Your task to perform on an android device: toggle priority inbox in the gmail app Image 0: 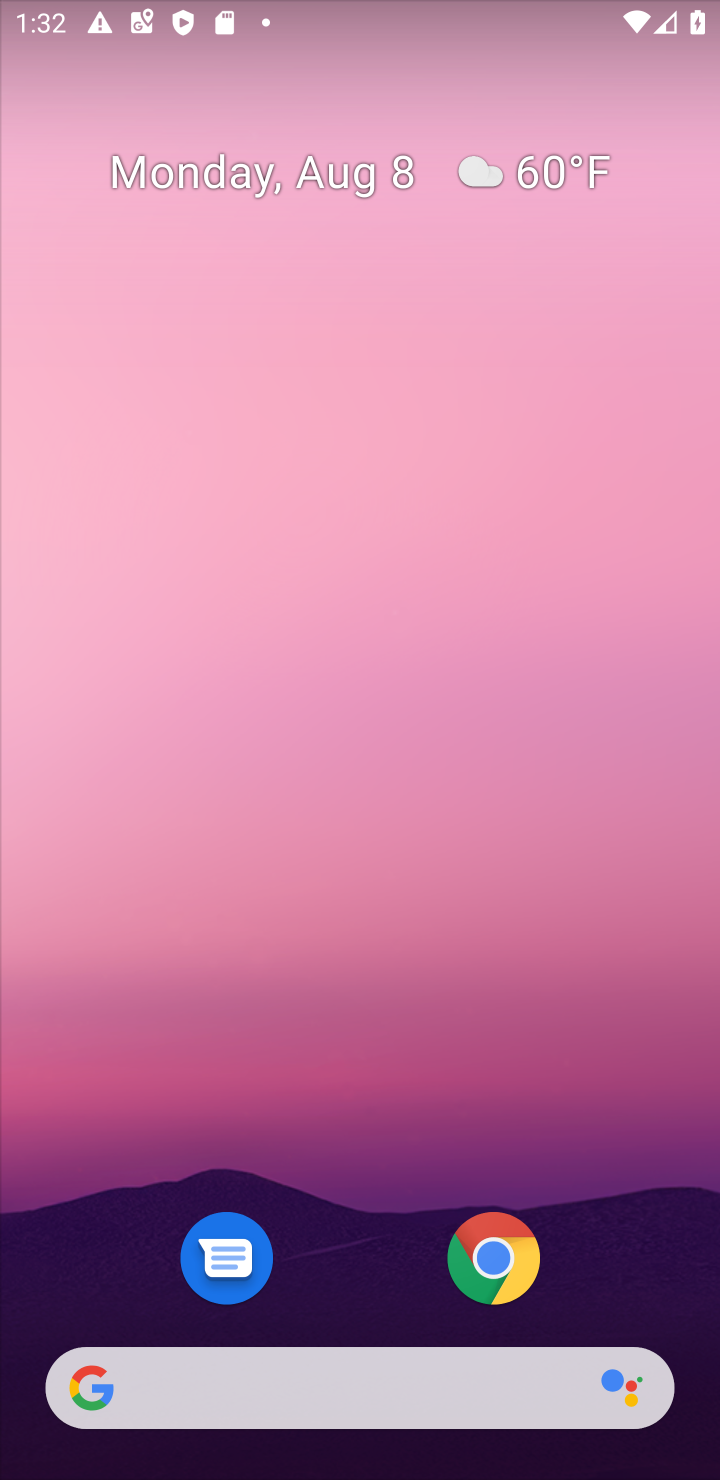
Step 0: drag from (443, 1074) to (602, 169)
Your task to perform on an android device: toggle priority inbox in the gmail app Image 1: 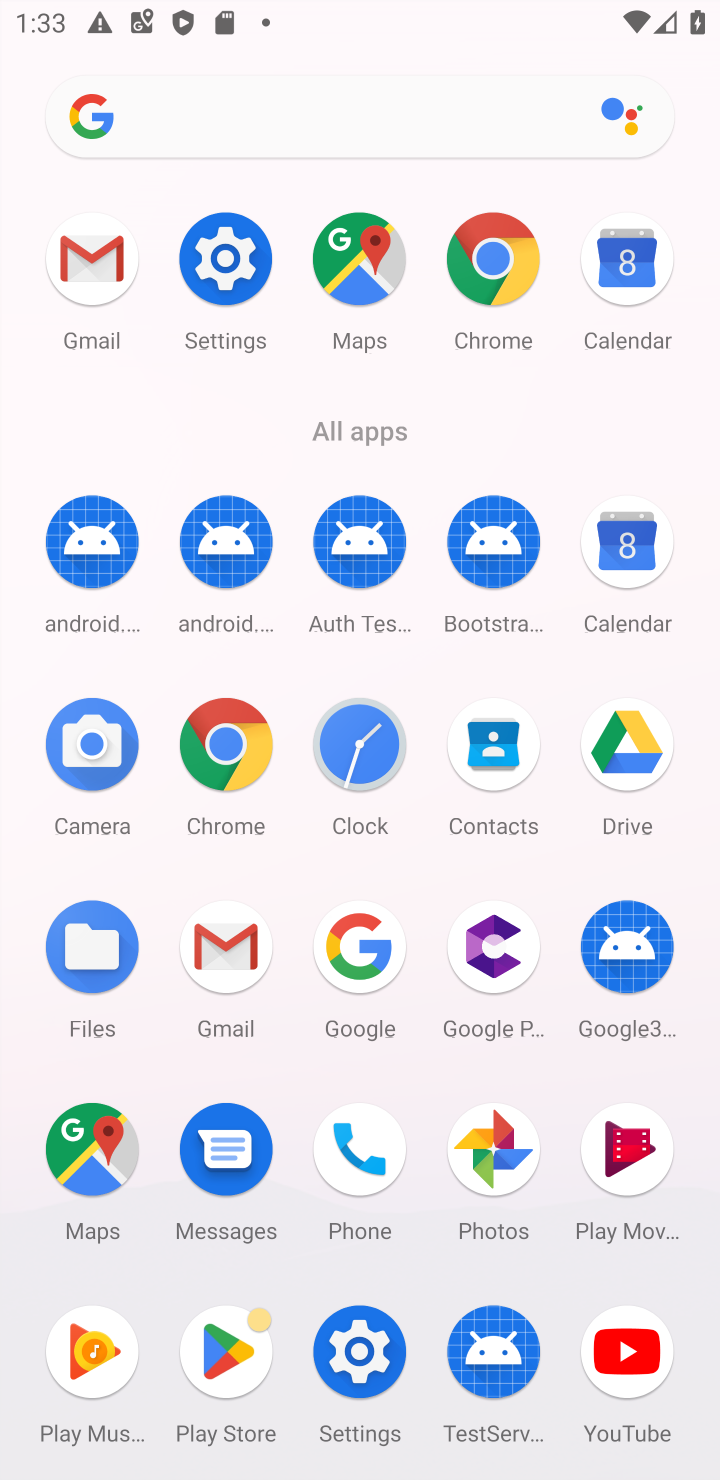
Step 1: click (248, 964)
Your task to perform on an android device: toggle priority inbox in the gmail app Image 2: 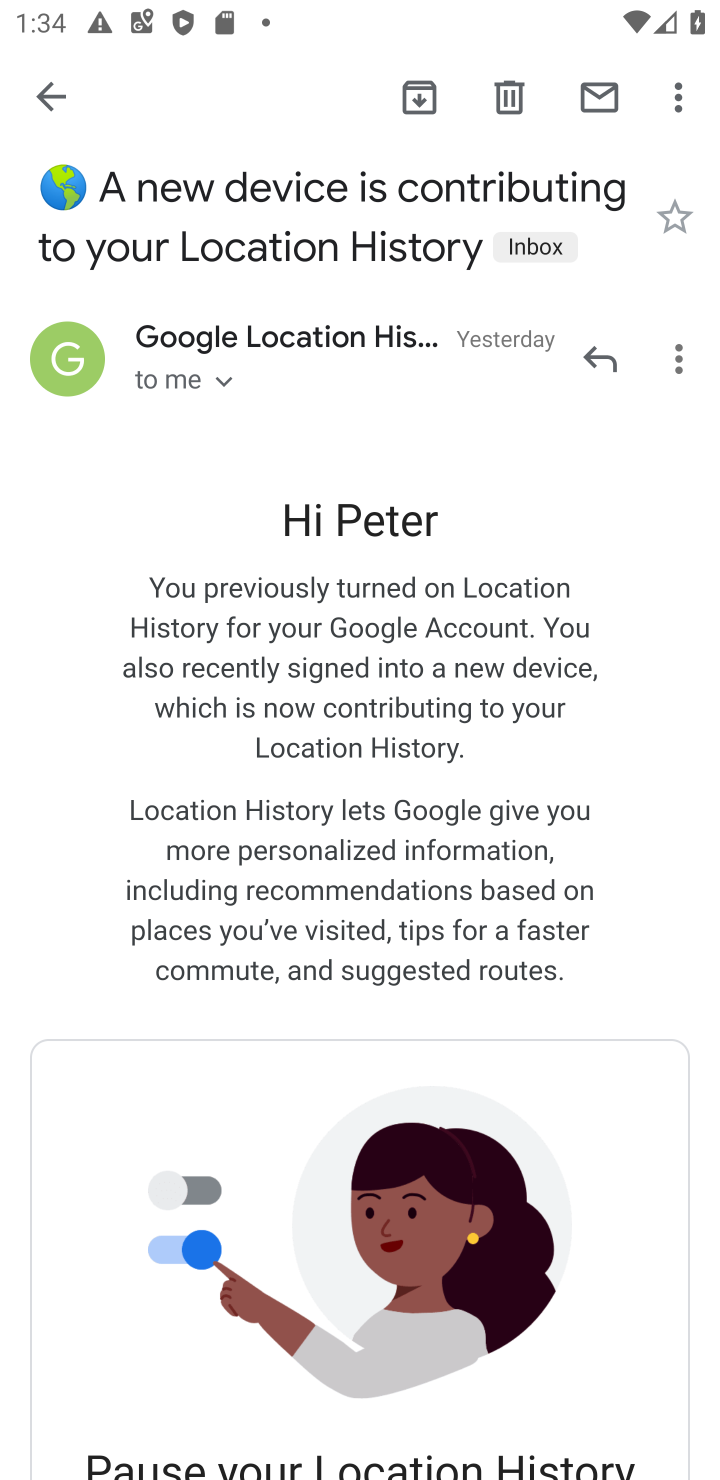
Step 2: click (40, 90)
Your task to perform on an android device: toggle priority inbox in the gmail app Image 3: 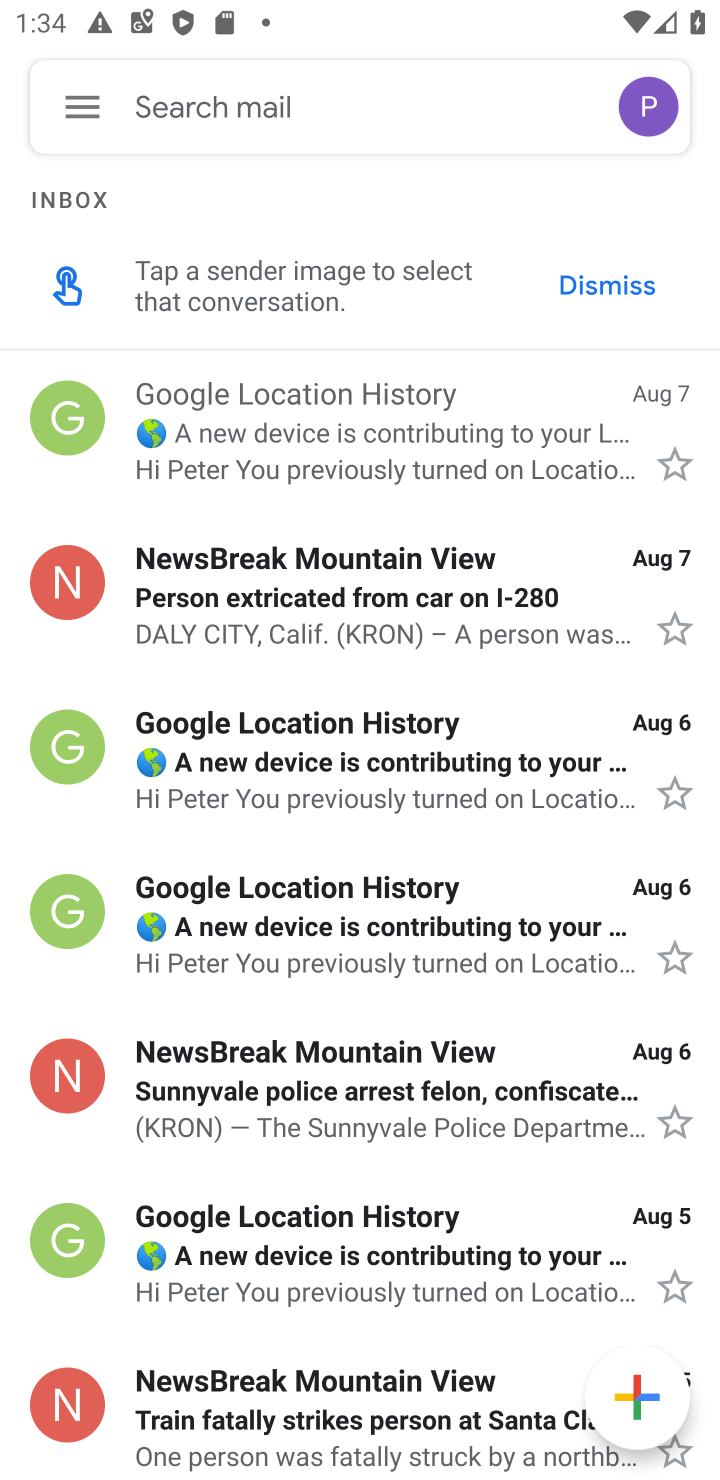
Step 3: click (80, 117)
Your task to perform on an android device: toggle priority inbox in the gmail app Image 4: 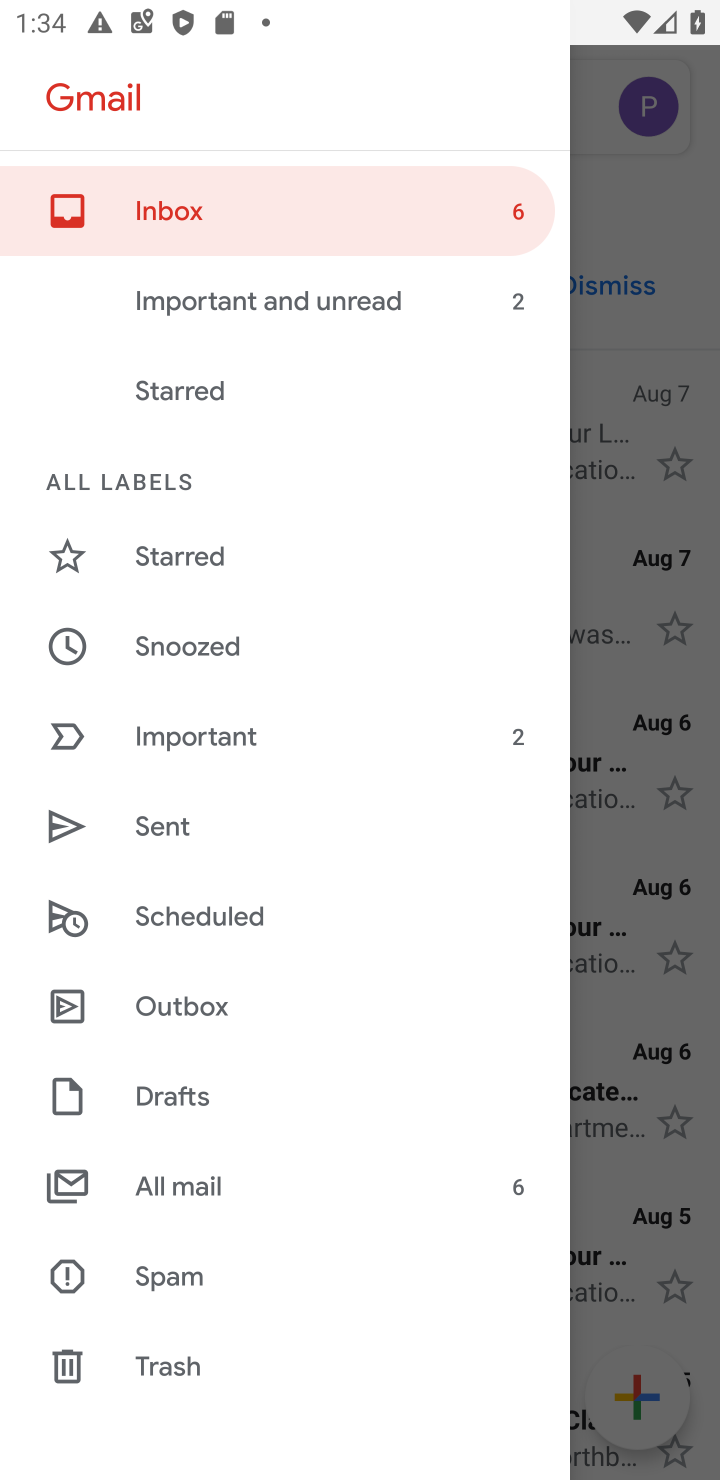
Step 4: drag from (196, 1206) to (389, 129)
Your task to perform on an android device: toggle priority inbox in the gmail app Image 5: 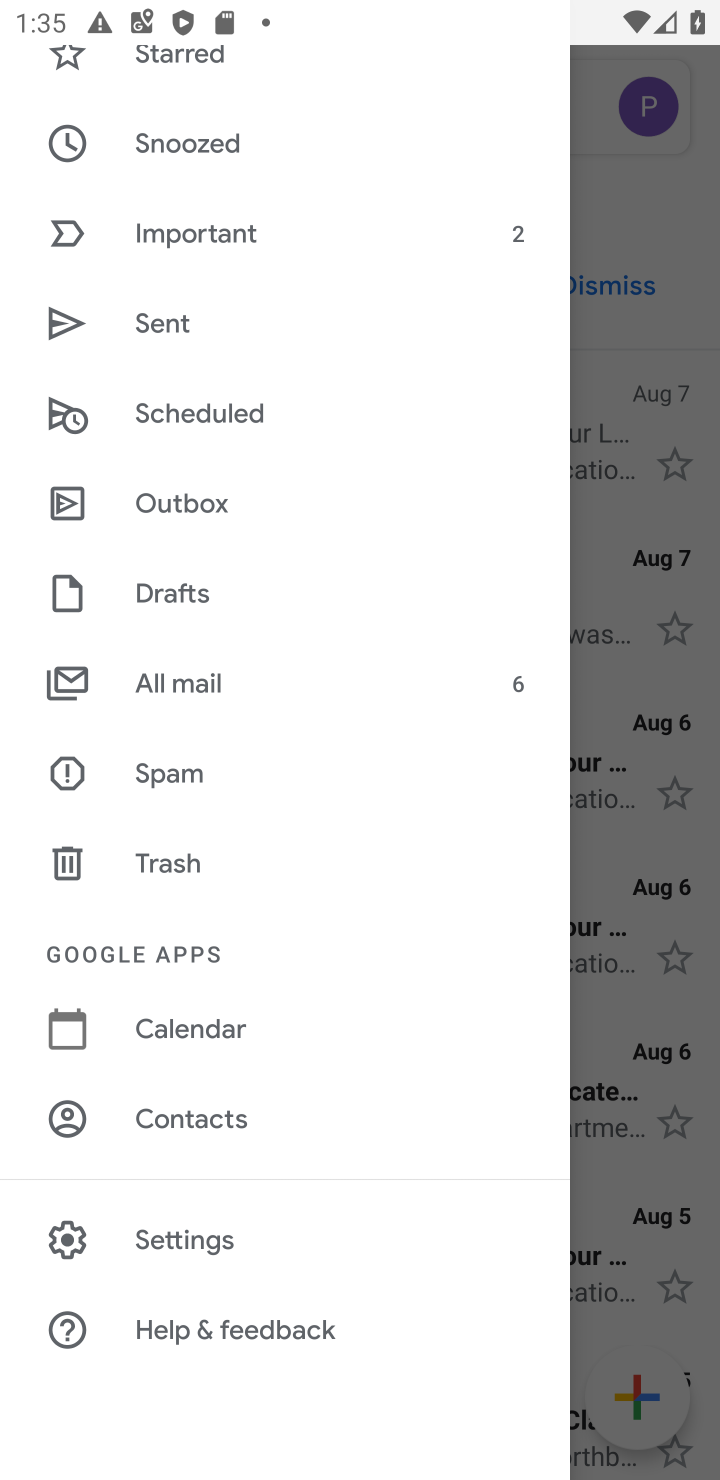
Step 5: click (196, 1243)
Your task to perform on an android device: toggle priority inbox in the gmail app Image 6: 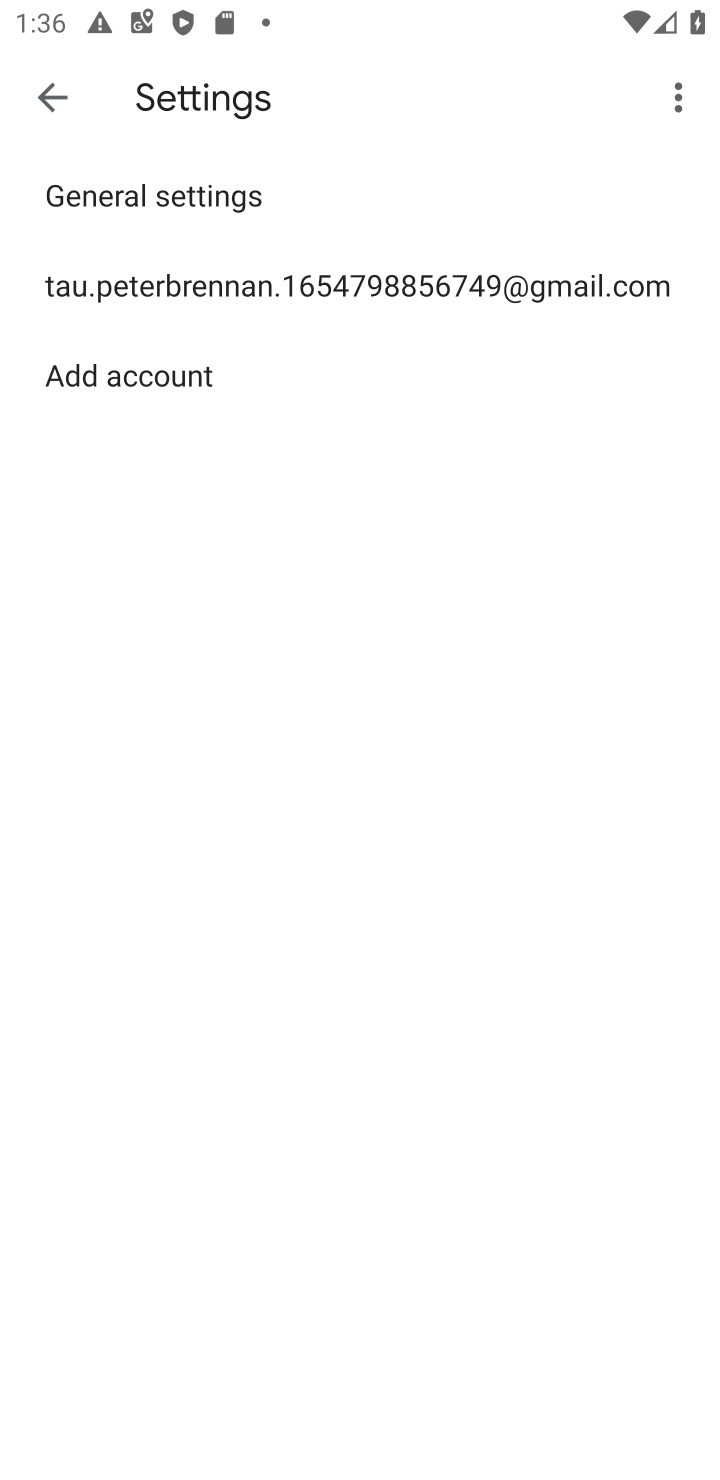
Step 6: click (249, 302)
Your task to perform on an android device: toggle priority inbox in the gmail app Image 7: 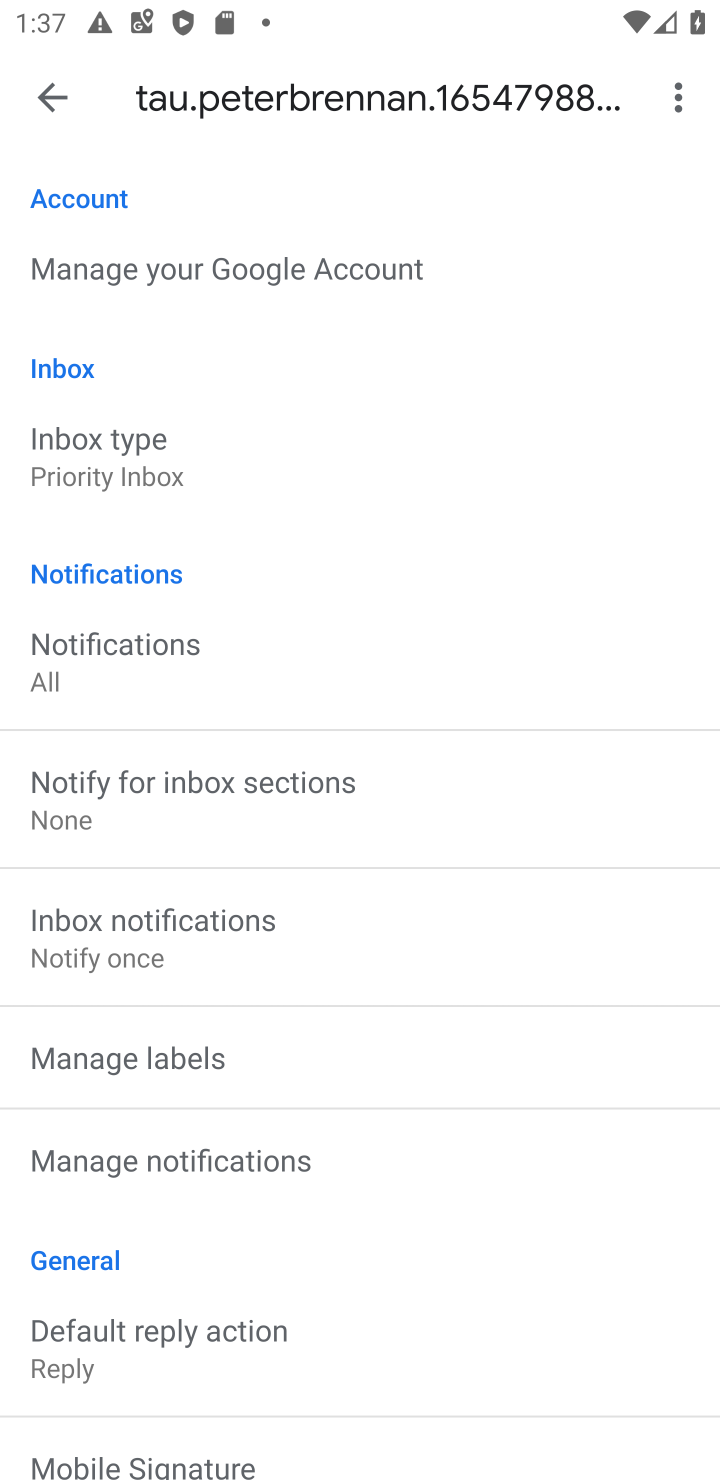
Step 7: click (101, 479)
Your task to perform on an android device: toggle priority inbox in the gmail app Image 8: 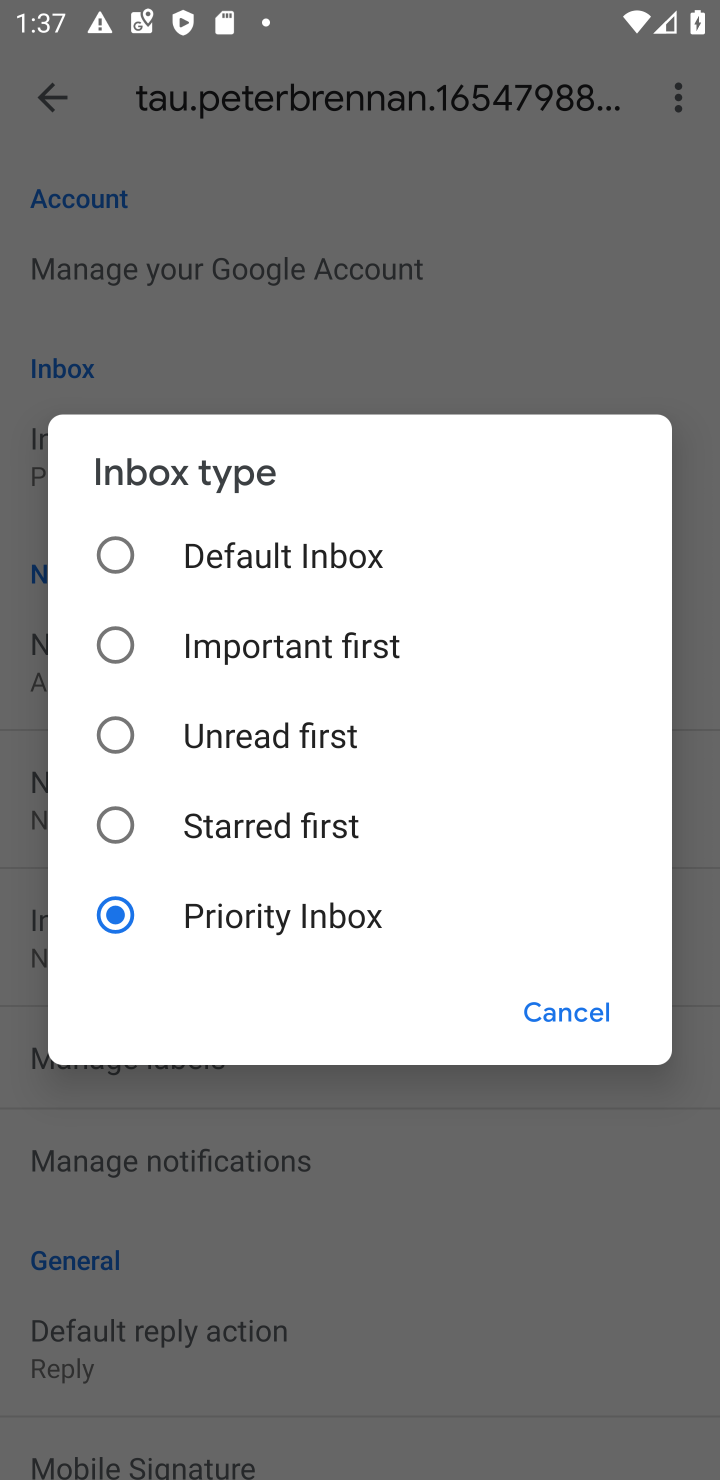
Step 8: click (172, 536)
Your task to perform on an android device: toggle priority inbox in the gmail app Image 9: 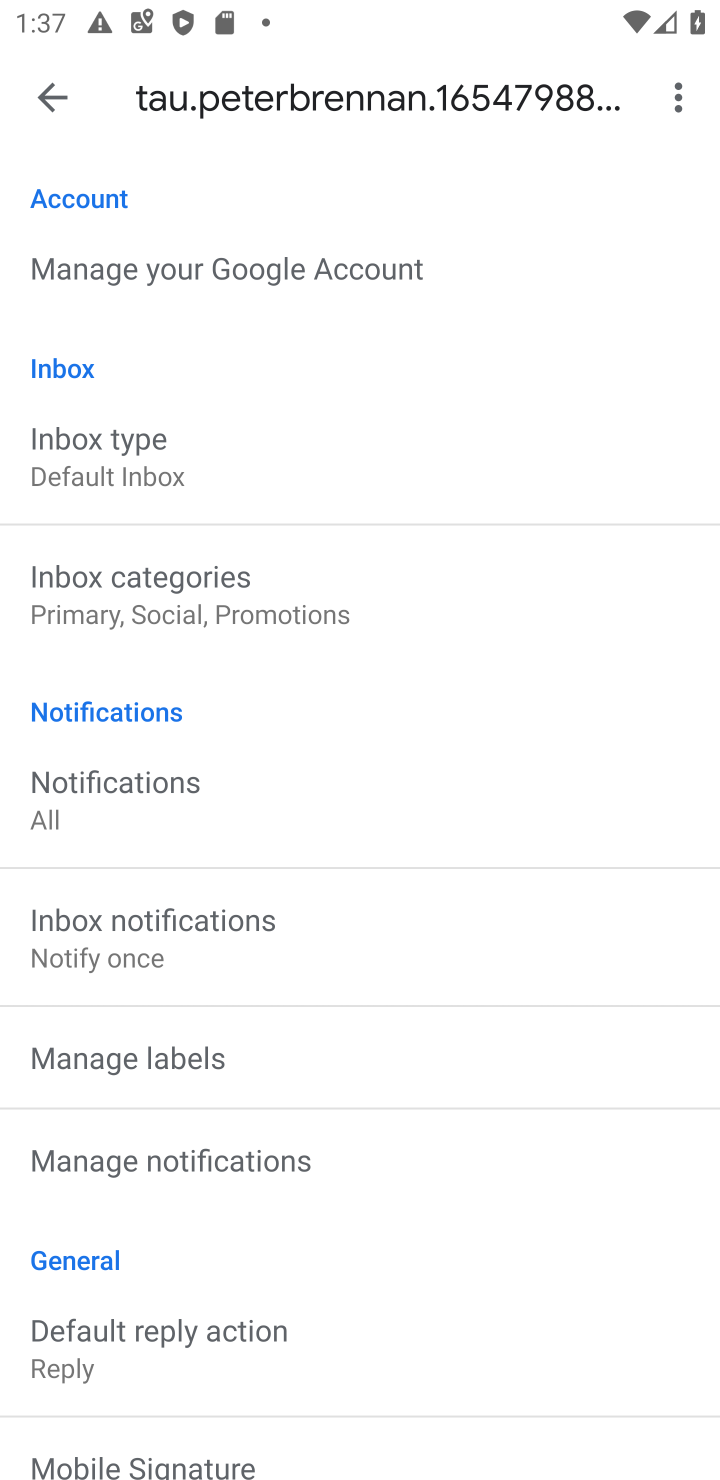
Step 9: task complete